Your task to perform on an android device: What's the weather going to be this weekend? Image 0: 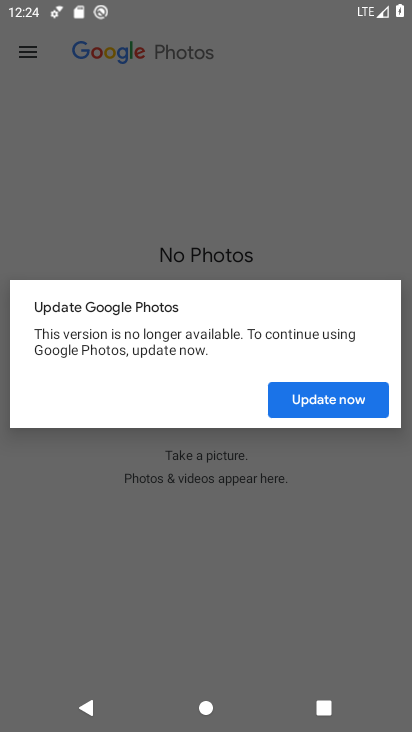
Step 0: press home button
Your task to perform on an android device: What's the weather going to be this weekend? Image 1: 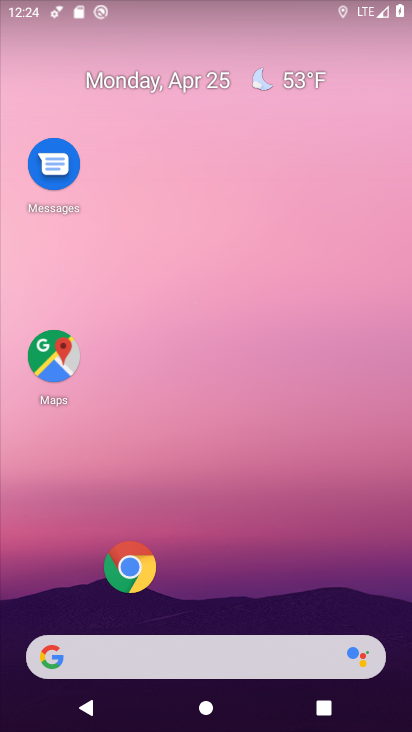
Step 1: drag from (276, 518) to (276, 193)
Your task to perform on an android device: What's the weather going to be this weekend? Image 2: 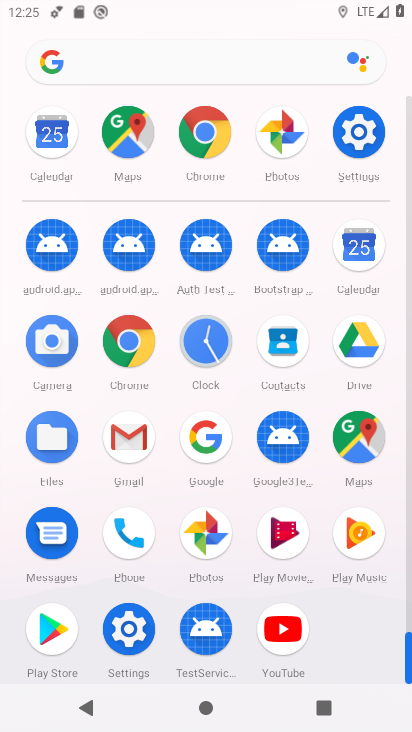
Step 2: click (201, 453)
Your task to perform on an android device: What's the weather going to be this weekend? Image 3: 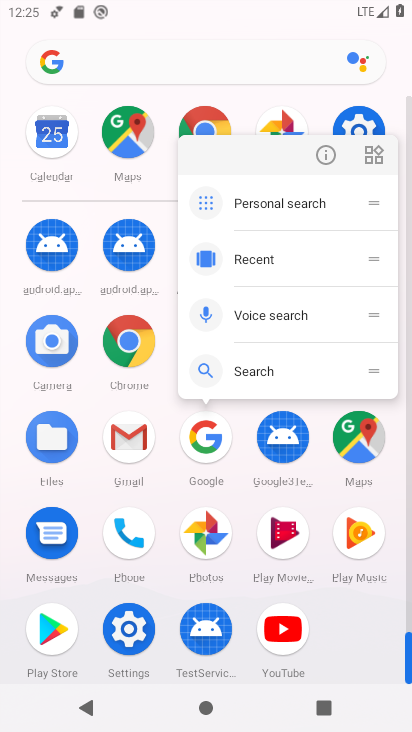
Step 3: click (199, 466)
Your task to perform on an android device: What's the weather going to be this weekend? Image 4: 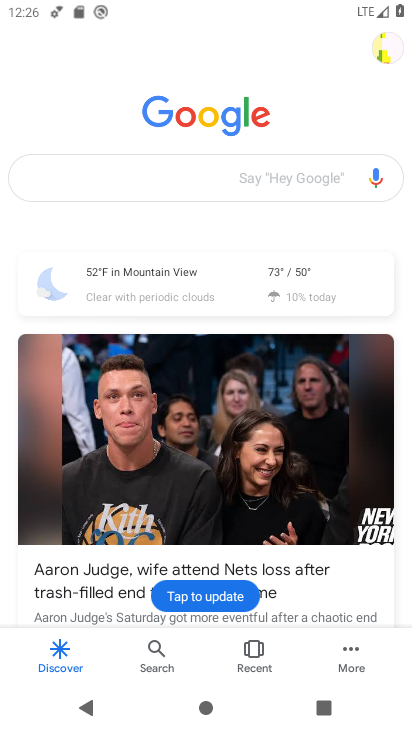
Step 4: click (226, 184)
Your task to perform on an android device: What's the weather going to be this weekend? Image 5: 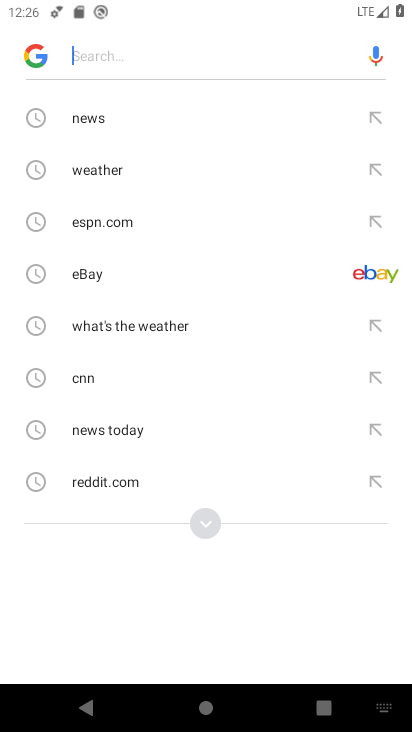
Step 5: click (146, 166)
Your task to perform on an android device: What's the weather going to be this weekend? Image 6: 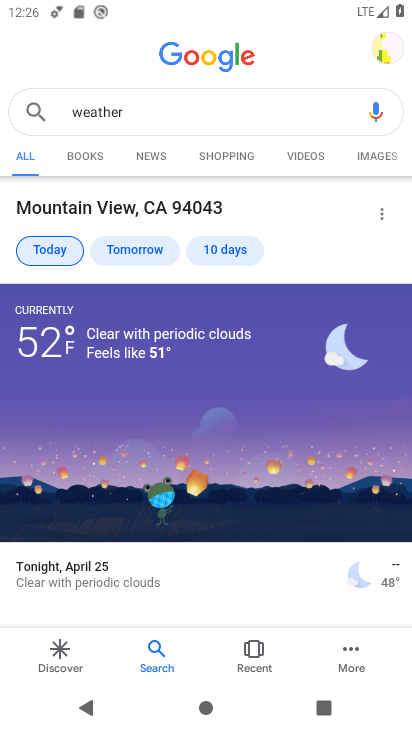
Step 6: click (230, 251)
Your task to perform on an android device: What's the weather going to be this weekend? Image 7: 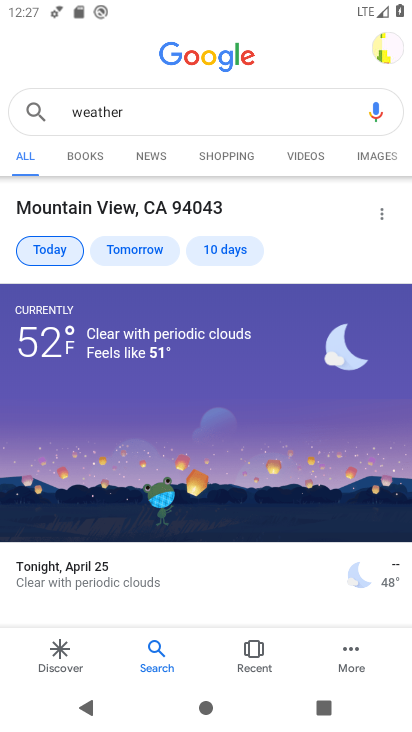
Step 7: click (216, 246)
Your task to perform on an android device: What's the weather going to be this weekend? Image 8: 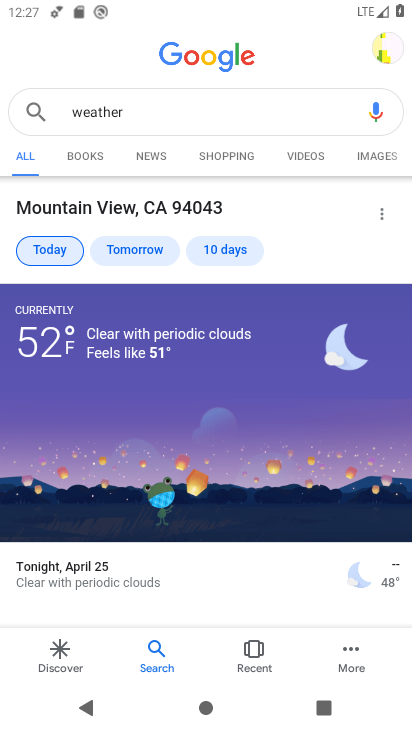
Step 8: task complete